Your task to perform on an android device: move an email to a new category in the gmail app Image 0: 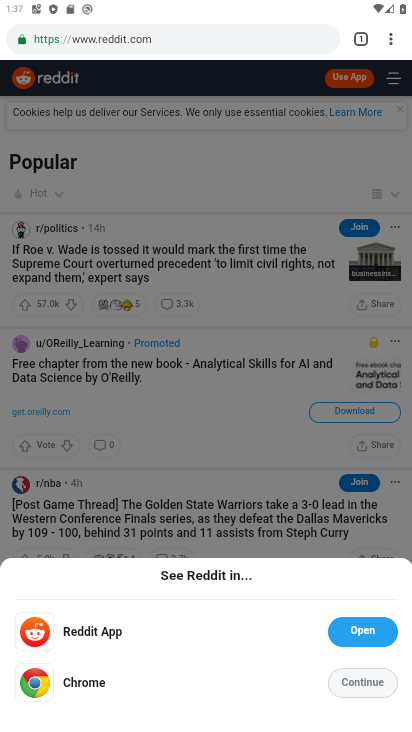
Step 0: press back button
Your task to perform on an android device: move an email to a new category in the gmail app Image 1: 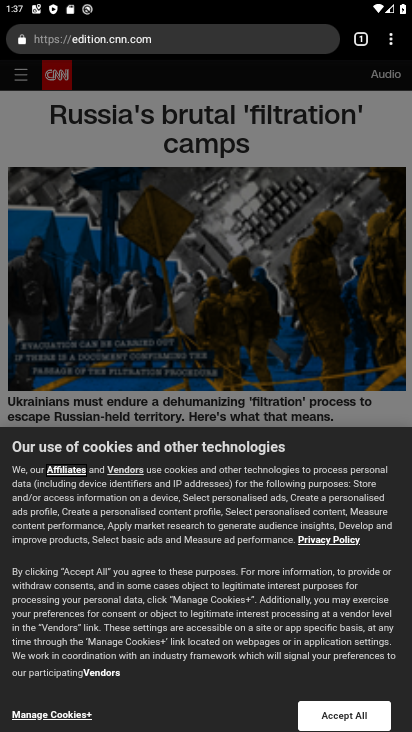
Step 1: press home button
Your task to perform on an android device: move an email to a new category in the gmail app Image 2: 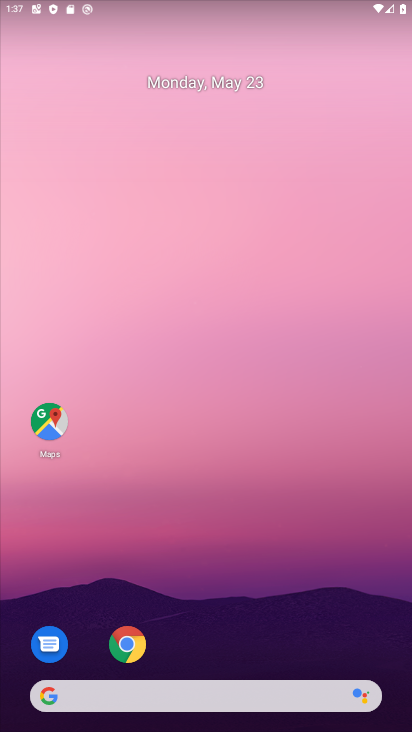
Step 2: drag from (212, 535) to (187, 12)
Your task to perform on an android device: move an email to a new category in the gmail app Image 3: 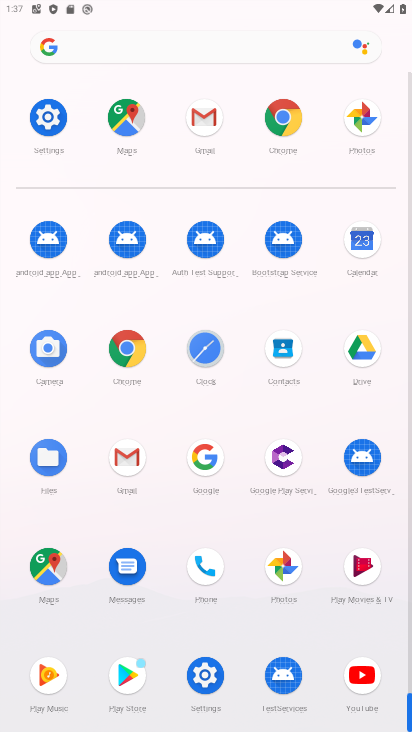
Step 3: click (126, 453)
Your task to perform on an android device: move an email to a new category in the gmail app Image 4: 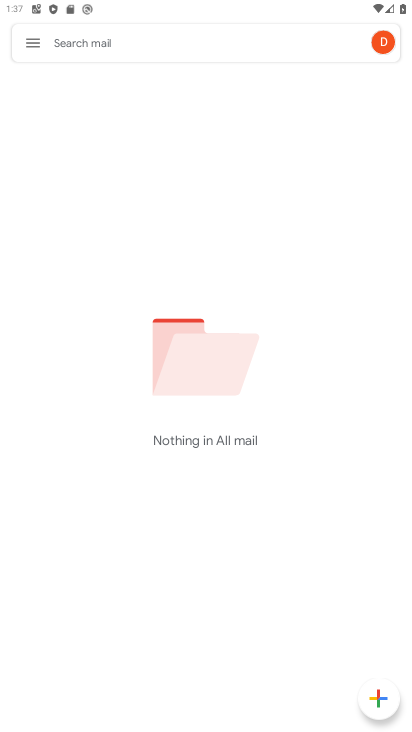
Step 4: click (30, 41)
Your task to perform on an android device: move an email to a new category in the gmail app Image 5: 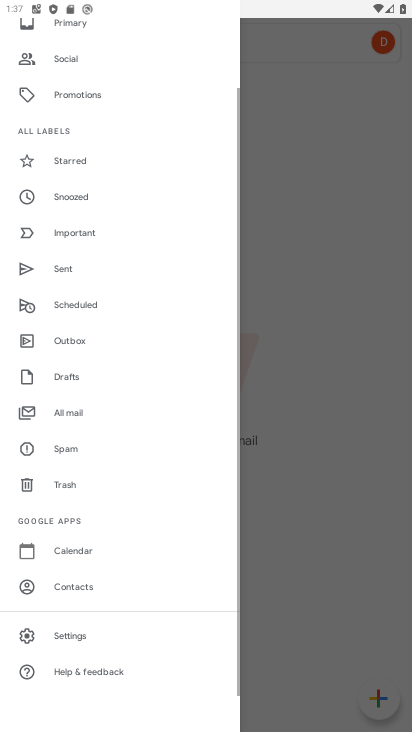
Step 5: drag from (128, 199) to (128, 77)
Your task to perform on an android device: move an email to a new category in the gmail app Image 6: 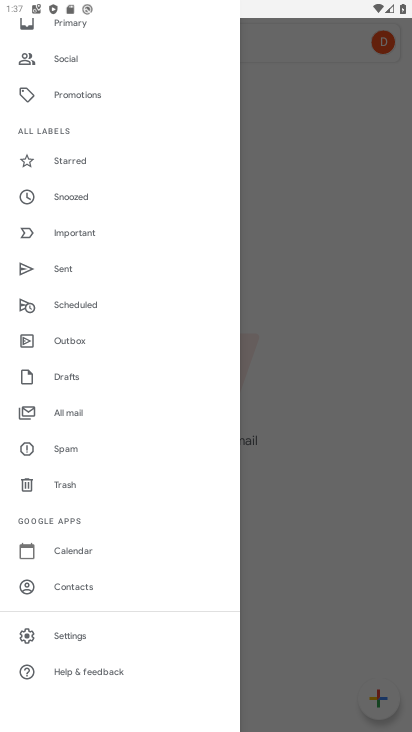
Step 6: click (66, 638)
Your task to perform on an android device: move an email to a new category in the gmail app Image 7: 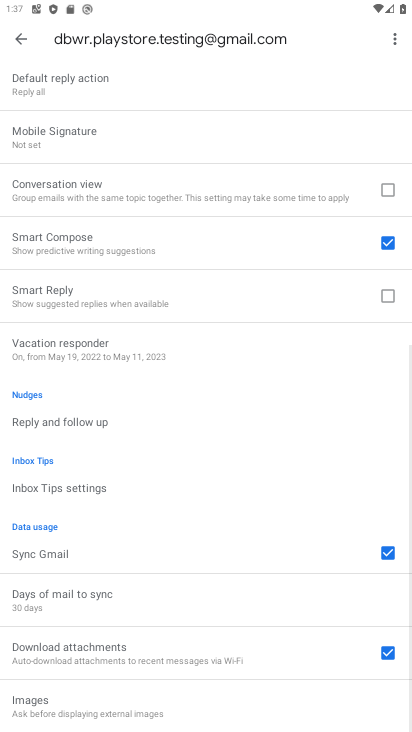
Step 7: click (24, 42)
Your task to perform on an android device: move an email to a new category in the gmail app Image 8: 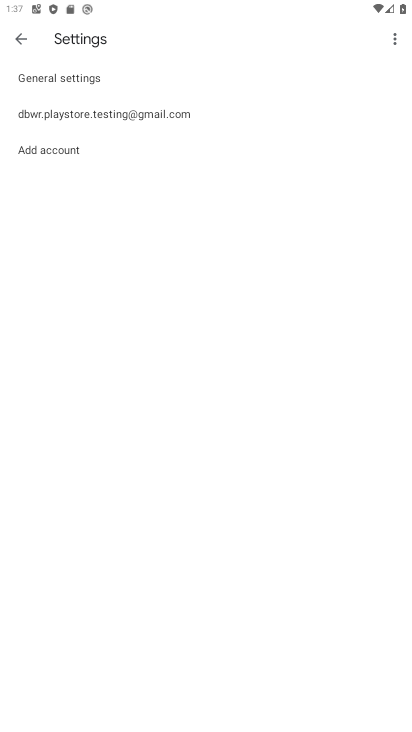
Step 8: click (24, 42)
Your task to perform on an android device: move an email to a new category in the gmail app Image 9: 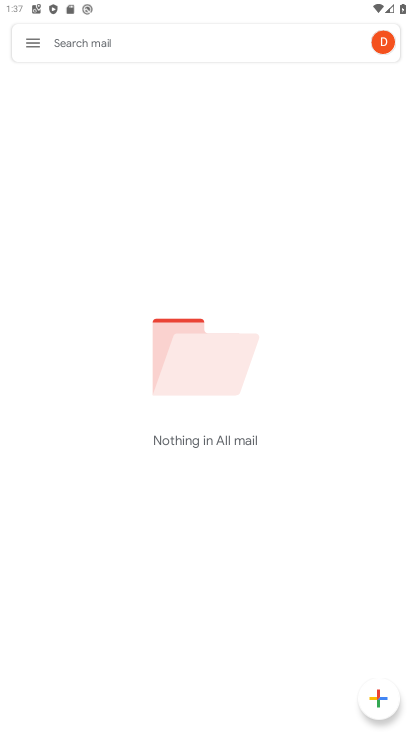
Step 9: click (24, 42)
Your task to perform on an android device: move an email to a new category in the gmail app Image 10: 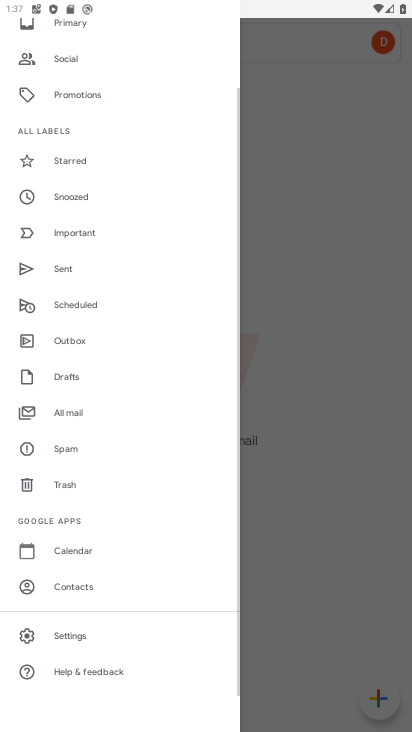
Step 10: drag from (139, 151) to (173, 643)
Your task to perform on an android device: move an email to a new category in the gmail app Image 11: 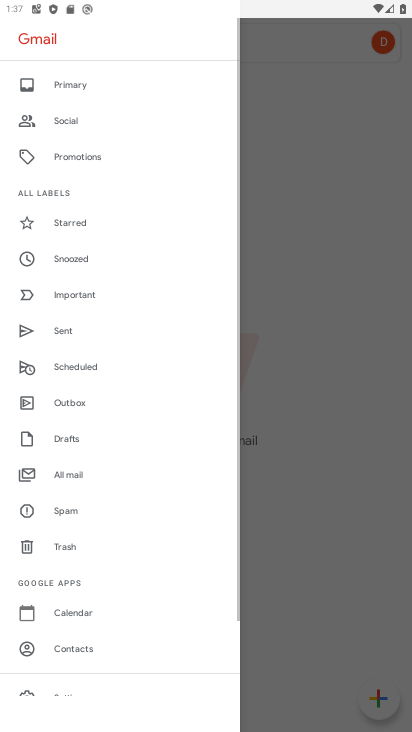
Step 11: click (92, 218)
Your task to perform on an android device: move an email to a new category in the gmail app Image 12: 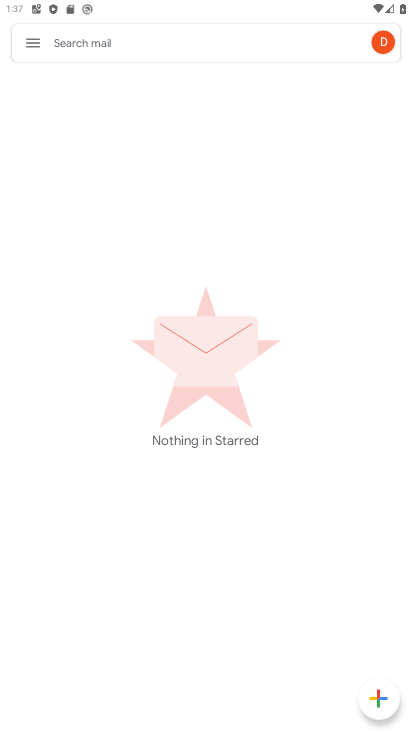
Step 12: click (36, 37)
Your task to perform on an android device: move an email to a new category in the gmail app Image 13: 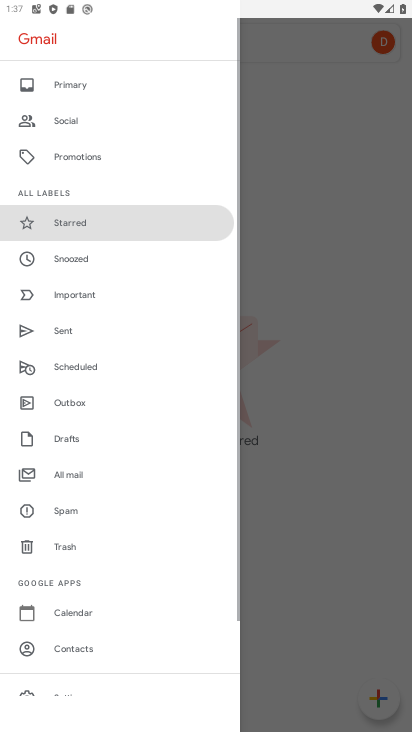
Step 13: drag from (158, 157) to (200, 622)
Your task to perform on an android device: move an email to a new category in the gmail app Image 14: 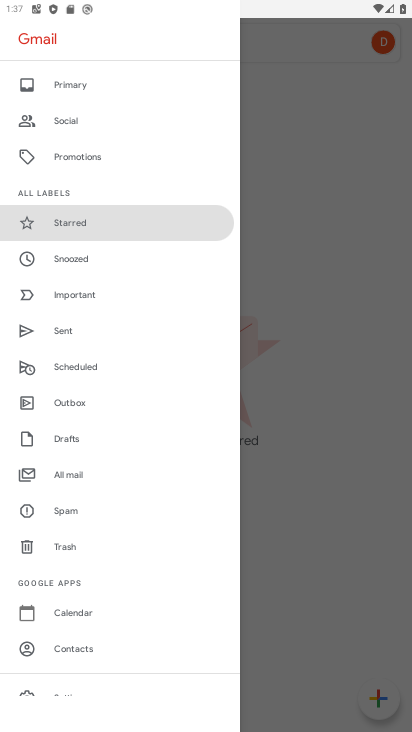
Step 14: click (105, 86)
Your task to perform on an android device: move an email to a new category in the gmail app Image 15: 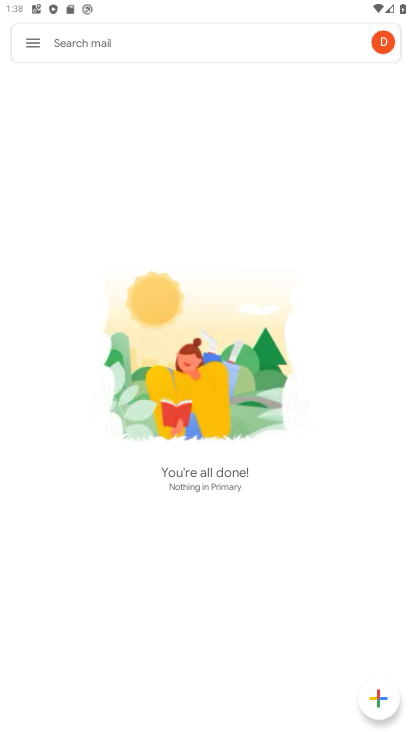
Step 15: click (22, 44)
Your task to perform on an android device: move an email to a new category in the gmail app Image 16: 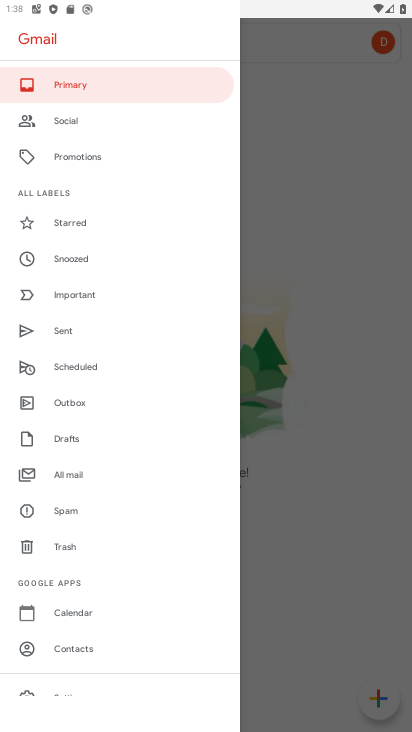
Step 16: drag from (135, 135) to (152, 555)
Your task to perform on an android device: move an email to a new category in the gmail app Image 17: 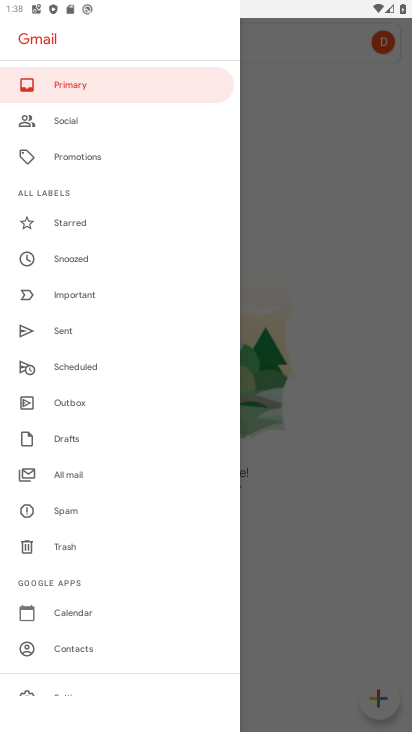
Step 17: drag from (123, 522) to (153, 146)
Your task to perform on an android device: move an email to a new category in the gmail app Image 18: 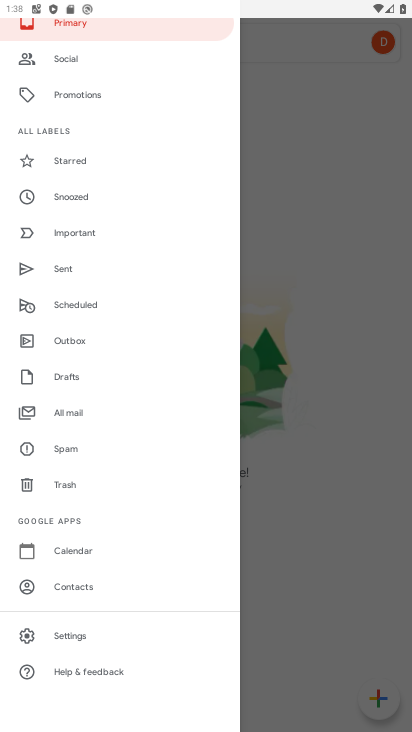
Step 18: drag from (142, 187) to (149, 689)
Your task to perform on an android device: move an email to a new category in the gmail app Image 19: 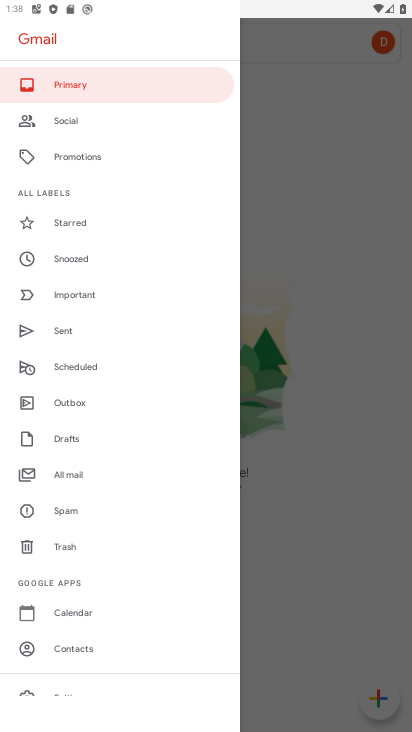
Step 19: click (89, 464)
Your task to perform on an android device: move an email to a new category in the gmail app Image 20: 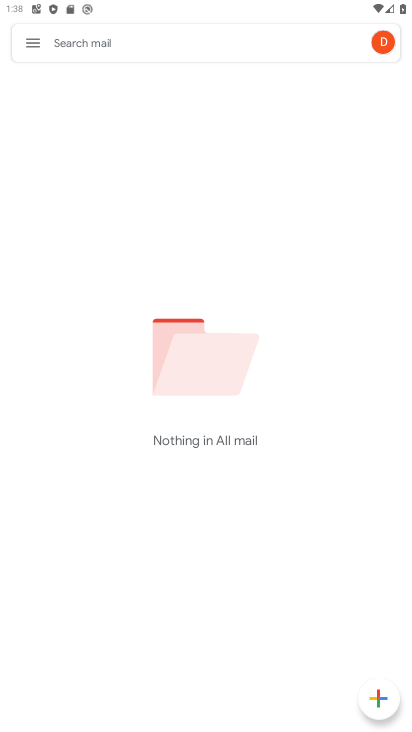
Step 20: click (37, 24)
Your task to perform on an android device: move an email to a new category in the gmail app Image 21: 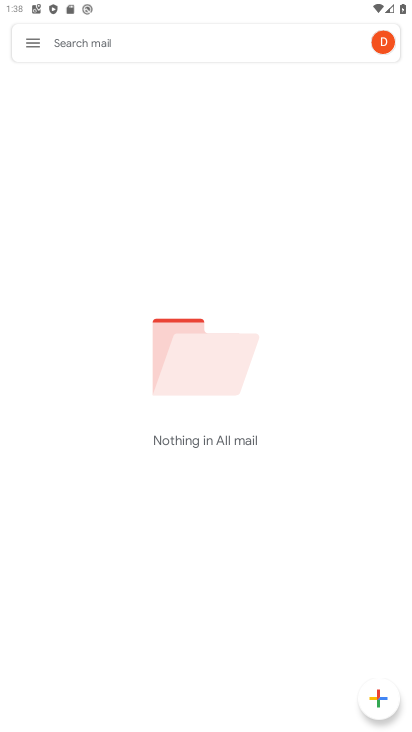
Step 21: click (31, 45)
Your task to perform on an android device: move an email to a new category in the gmail app Image 22: 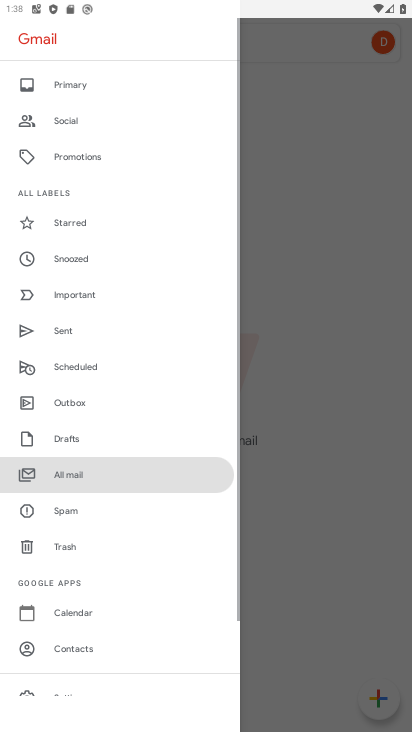
Step 22: drag from (150, 259) to (174, 690)
Your task to perform on an android device: move an email to a new category in the gmail app Image 23: 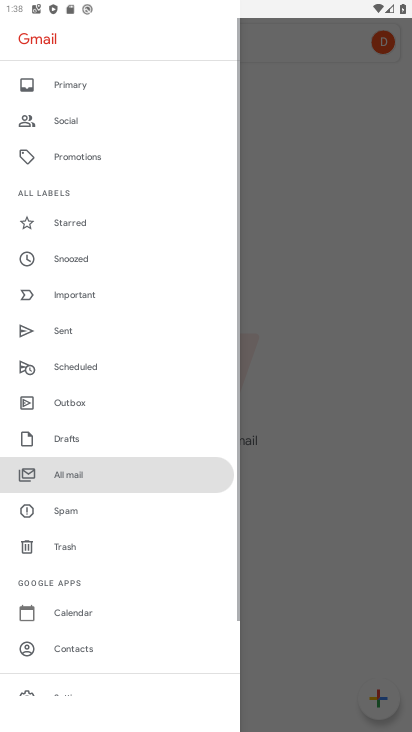
Step 23: click (109, 81)
Your task to perform on an android device: move an email to a new category in the gmail app Image 24: 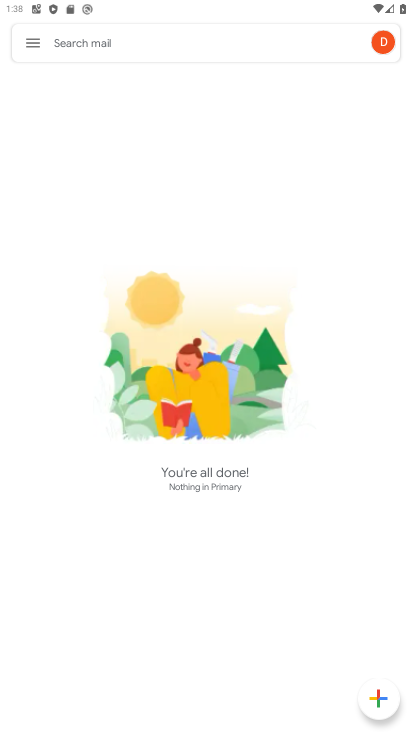
Step 24: task complete